Your task to perform on an android device: turn off smart reply in the gmail app Image 0: 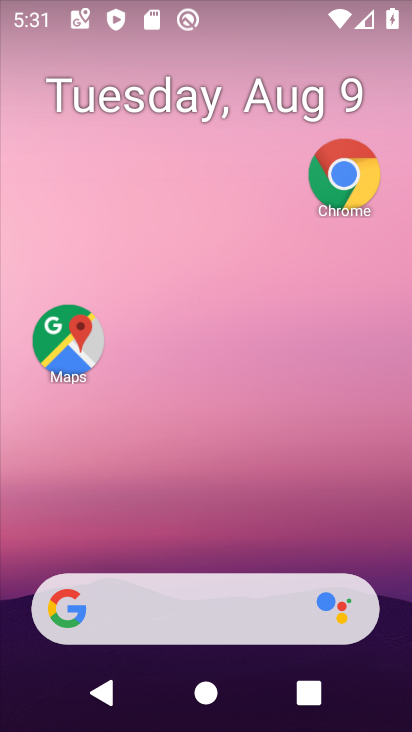
Step 0: drag from (222, 548) to (200, 60)
Your task to perform on an android device: turn off smart reply in the gmail app Image 1: 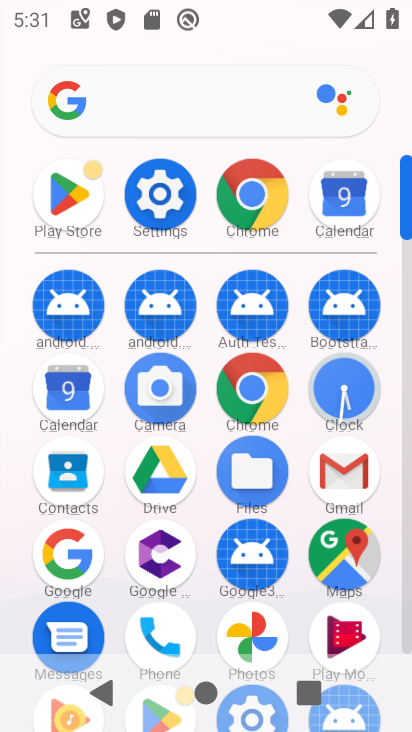
Step 1: click (341, 467)
Your task to perform on an android device: turn off smart reply in the gmail app Image 2: 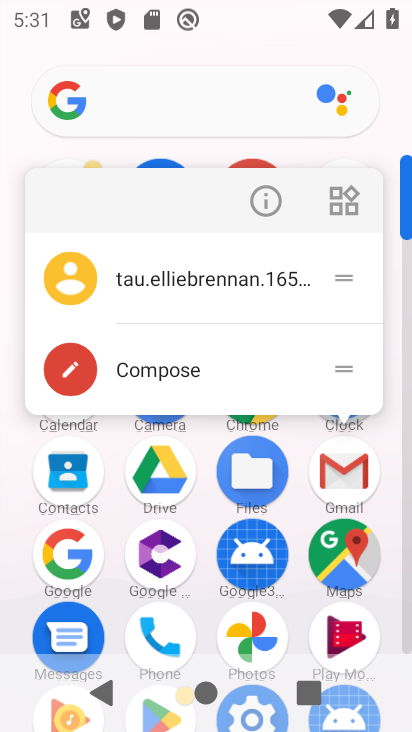
Step 2: click (266, 203)
Your task to perform on an android device: turn off smart reply in the gmail app Image 3: 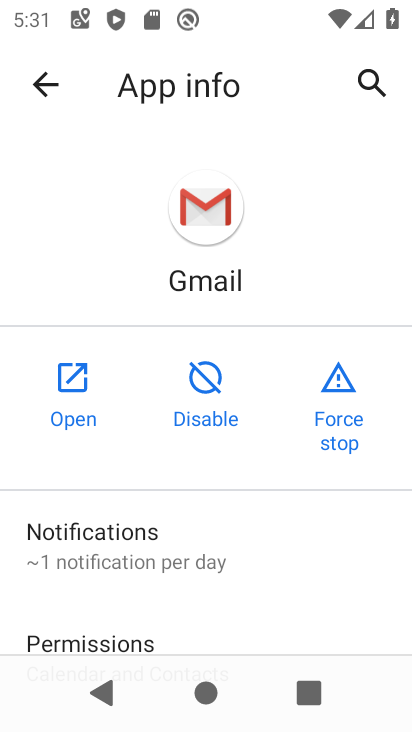
Step 3: click (93, 401)
Your task to perform on an android device: turn off smart reply in the gmail app Image 4: 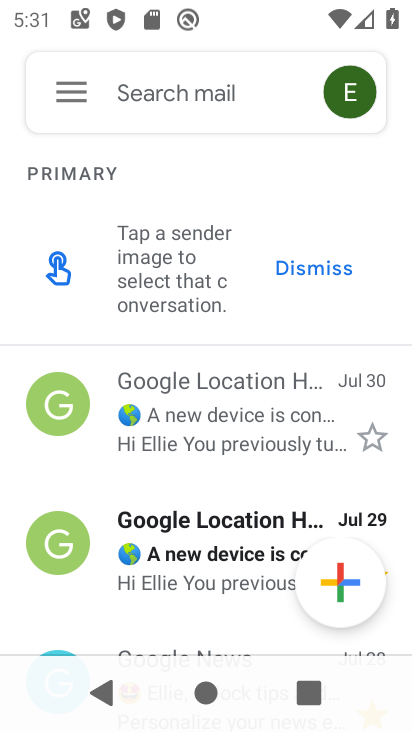
Step 4: click (96, 111)
Your task to perform on an android device: turn off smart reply in the gmail app Image 5: 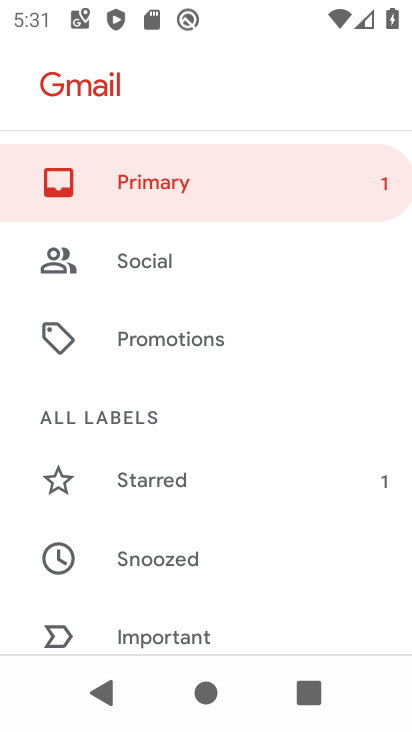
Step 5: drag from (146, 546) to (175, 82)
Your task to perform on an android device: turn off smart reply in the gmail app Image 6: 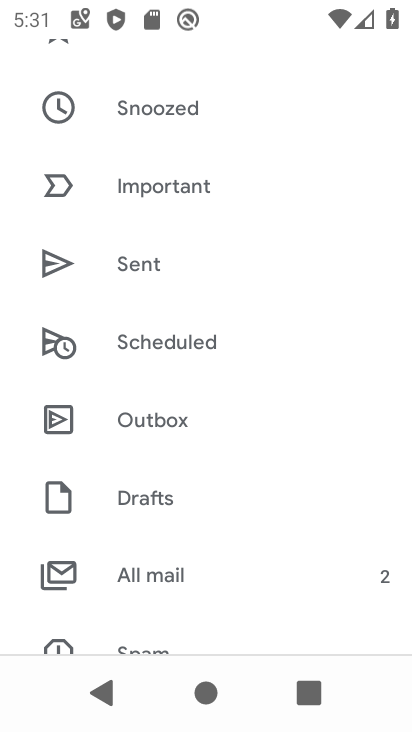
Step 6: drag from (224, 578) to (239, 212)
Your task to perform on an android device: turn off smart reply in the gmail app Image 7: 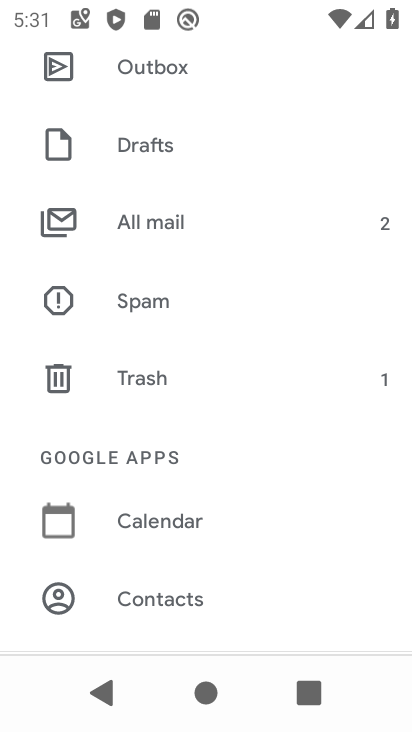
Step 7: drag from (230, 562) to (211, 440)
Your task to perform on an android device: turn off smart reply in the gmail app Image 8: 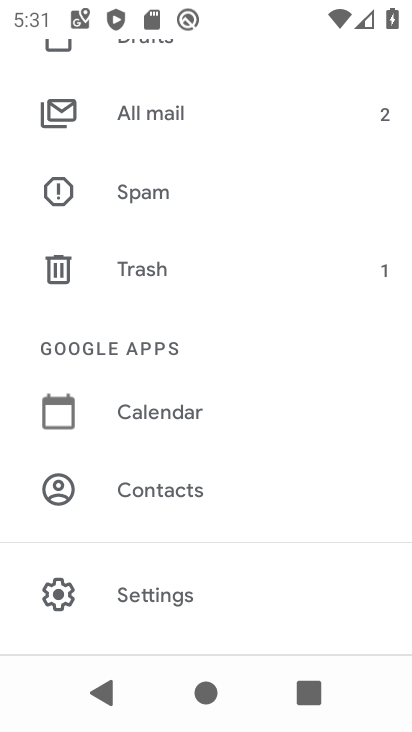
Step 8: drag from (163, 247) to (210, 428)
Your task to perform on an android device: turn off smart reply in the gmail app Image 9: 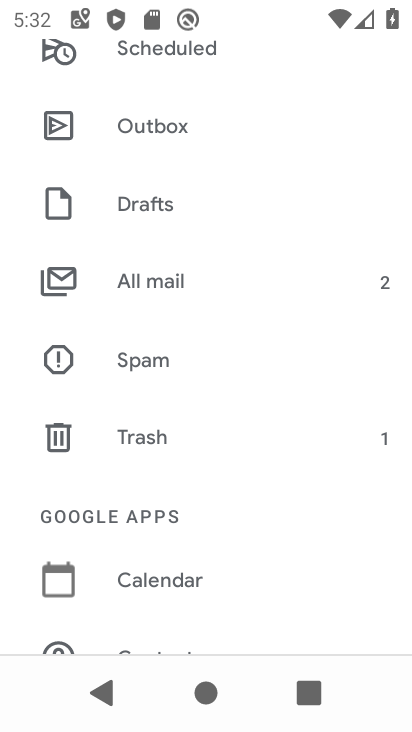
Step 9: drag from (263, 551) to (255, 315)
Your task to perform on an android device: turn off smart reply in the gmail app Image 10: 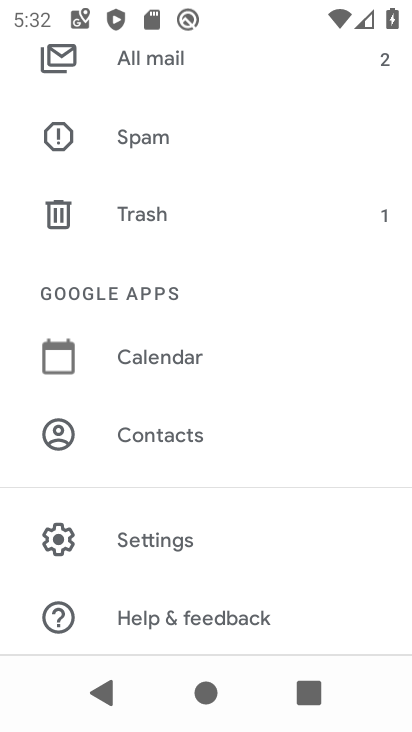
Step 10: drag from (186, 546) to (175, 38)
Your task to perform on an android device: turn off smart reply in the gmail app Image 11: 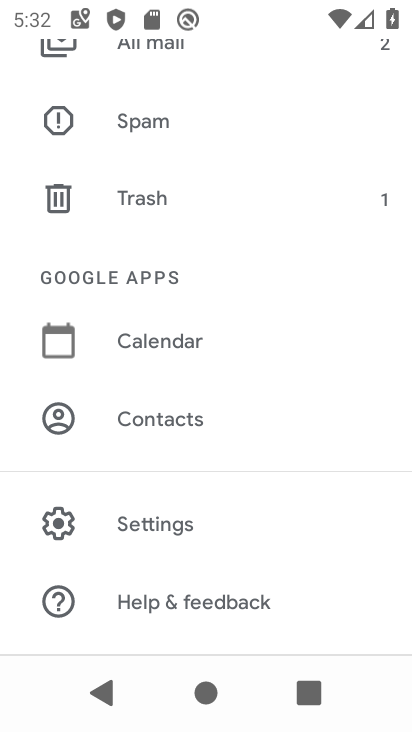
Step 11: drag from (187, 572) to (200, 255)
Your task to perform on an android device: turn off smart reply in the gmail app Image 12: 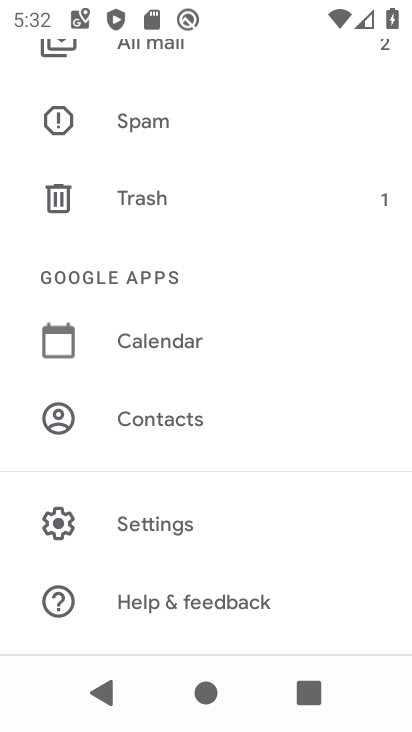
Step 12: click (178, 534)
Your task to perform on an android device: turn off smart reply in the gmail app Image 13: 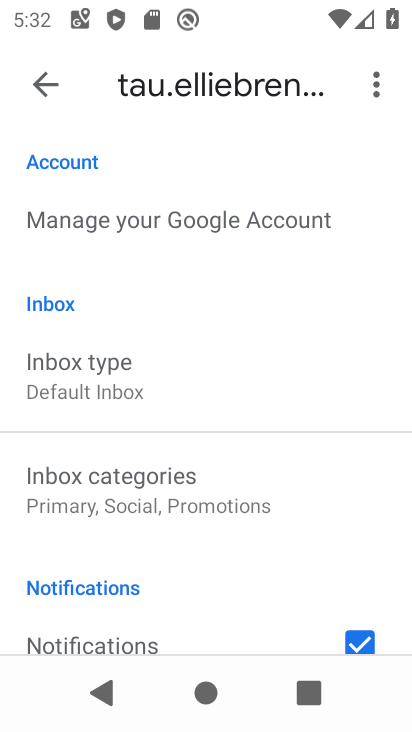
Step 13: drag from (205, 548) to (212, 404)
Your task to perform on an android device: turn off smart reply in the gmail app Image 14: 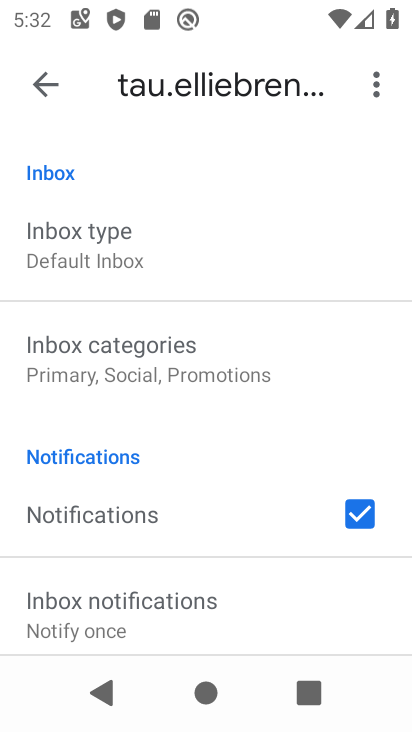
Step 14: click (132, 266)
Your task to perform on an android device: turn off smart reply in the gmail app Image 15: 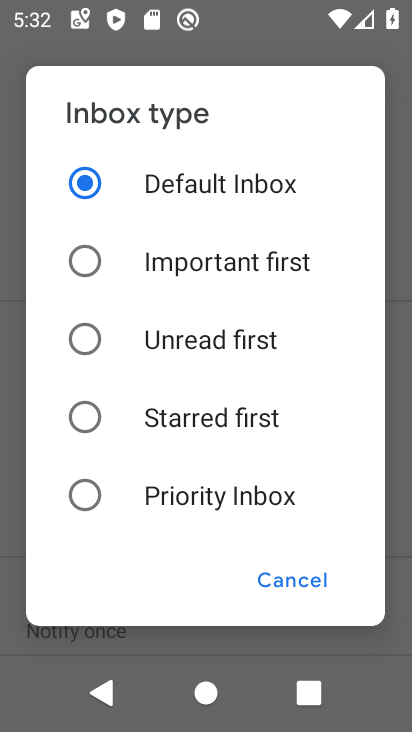
Step 15: click (287, 574)
Your task to perform on an android device: turn off smart reply in the gmail app Image 16: 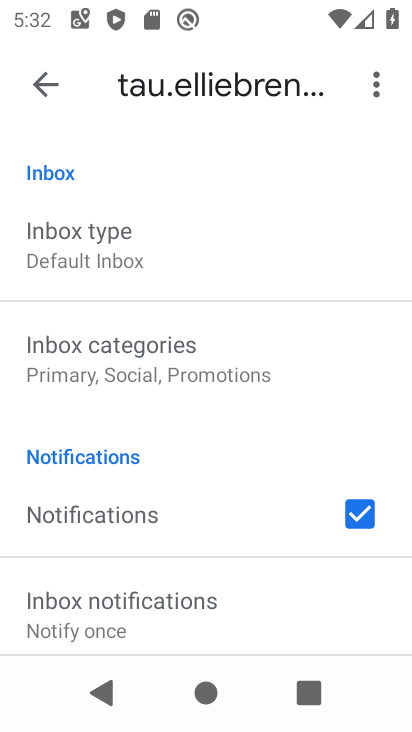
Step 16: drag from (174, 570) to (206, 388)
Your task to perform on an android device: turn off smart reply in the gmail app Image 17: 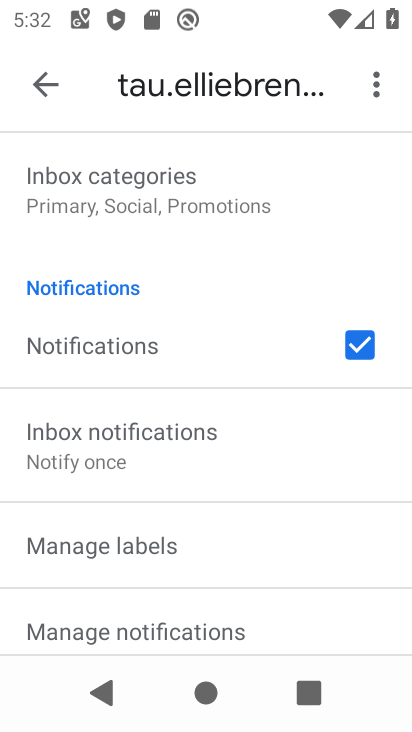
Step 17: drag from (225, 589) to (176, 261)
Your task to perform on an android device: turn off smart reply in the gmail app Image 18: 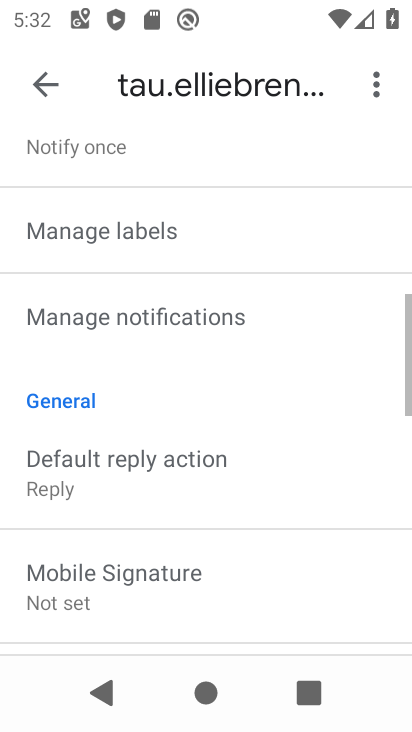
Step 18: drag from (197, 535) to (217, 305)
Your task to perform on an android device: turn off smart reply in the gmail app Image 19: 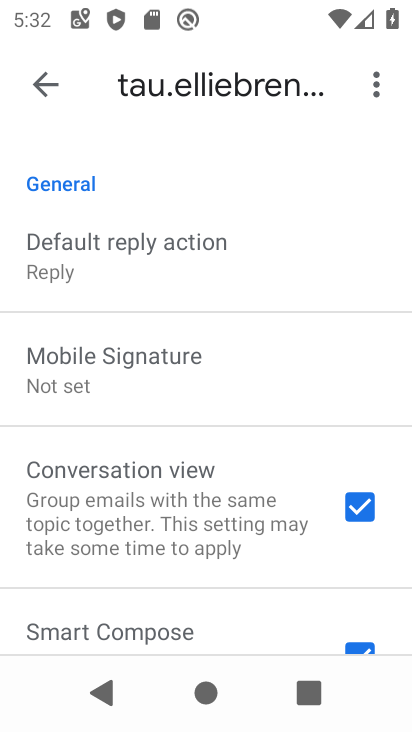
Step 19: drag from (202, 552) to (181, 318)
Your task to perform on an android device: turn off smart reply in the gmail app Image 20: 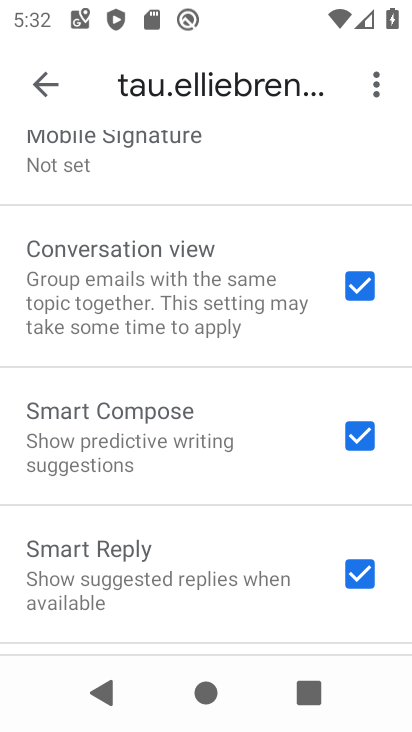
Step 20: drag from (197, 586) to (204, 226)
Your task to perform on an android device: turn off smart reply in the gmail app Image 21: 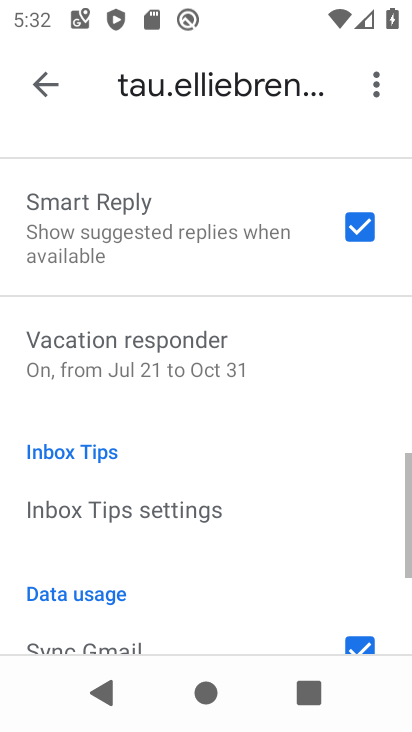
Step 21: drag from (218, 567) to (215, 389)
Your task to perform on an android device: turn off smart reply in the gmail app Image 22: 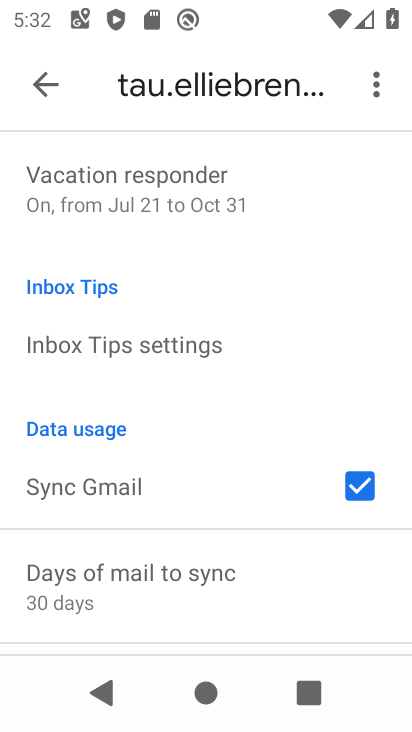
Step 22: drag from (222, 531) to (219, 290)
Your task to perform on an android device: turn off smart reply in the gmail app Image 23: 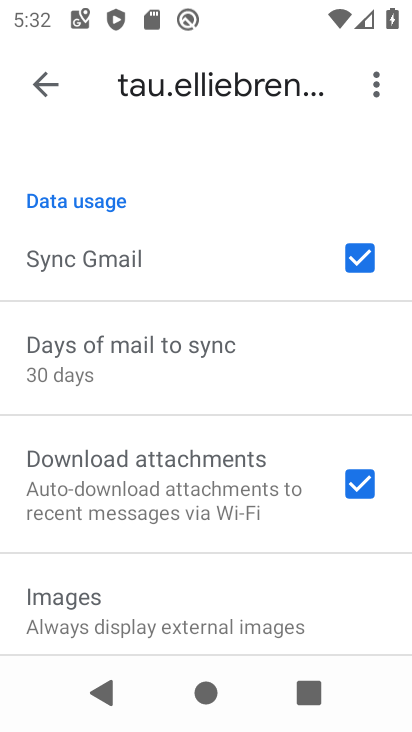
Step 23: drag from (198, 577) to (203, 327)
Your task to perform on an android device: turn off smart reply in the gmail app Image 24: 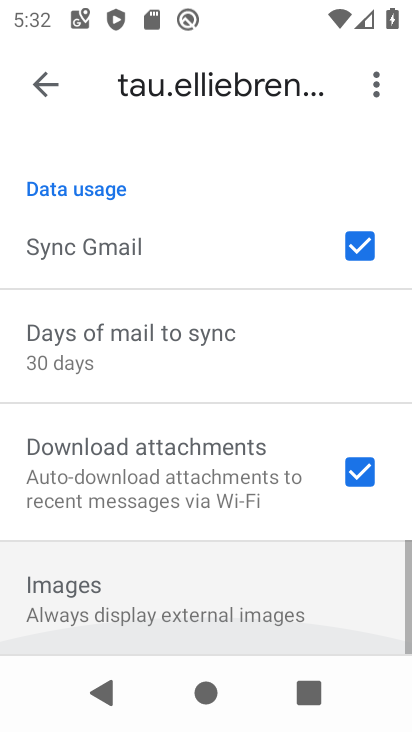
Step 24: drag from (206, 232) to (222, 361)
Your task to perform on an android device: turn off smart reply in the gmail app Image 25: 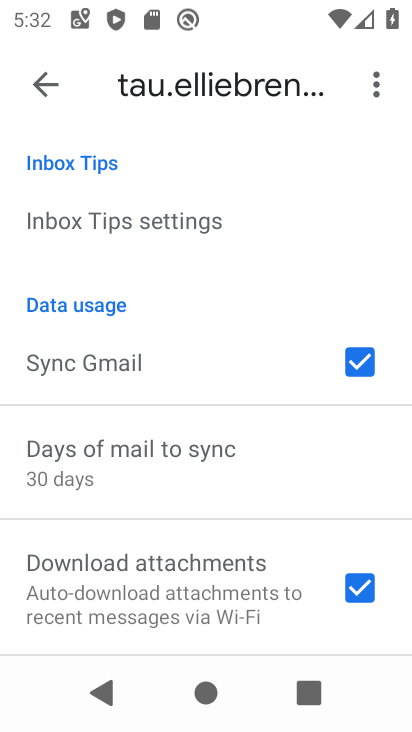
Step 25: drag from (161, 273) to (250, 511)
Your task to perform on an android device: turn off smart reply in the gmail app Image 26: 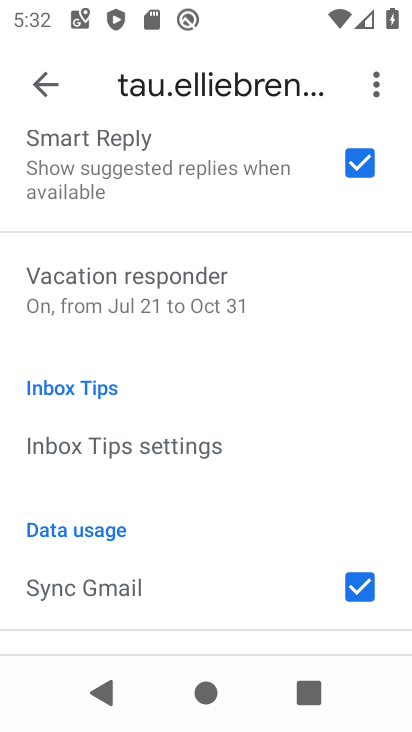
Step 26: drag from (175, 319) to (301, 569)
Your task to perform on an android device: turn off smart reply in the gmail app Image 27: 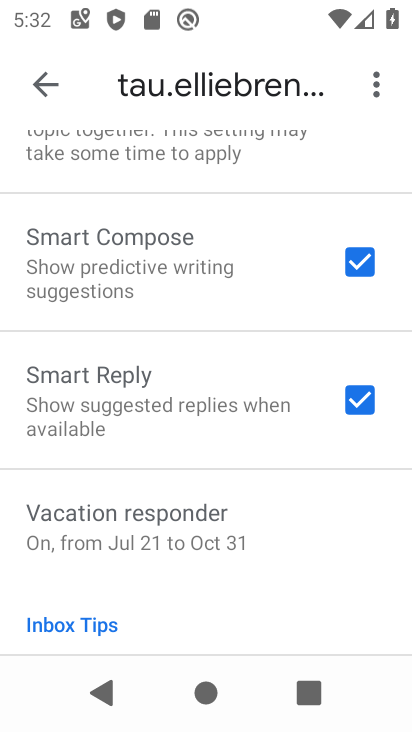
Step 27: drag from (180, 512) to (197, 181)
Your task to perform on an android device: turn off smart reply in the gmail app Image 28: 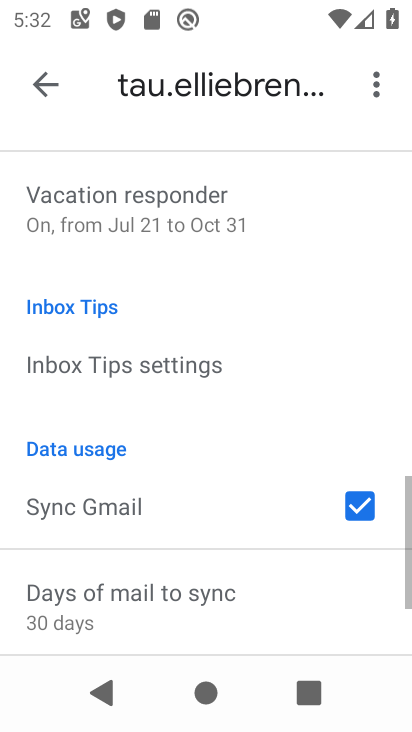
Step 28: drag from (181, 248) to (282, 626)
Your task to perform on an android device: turn off smart reply in the gmail app Image 29: 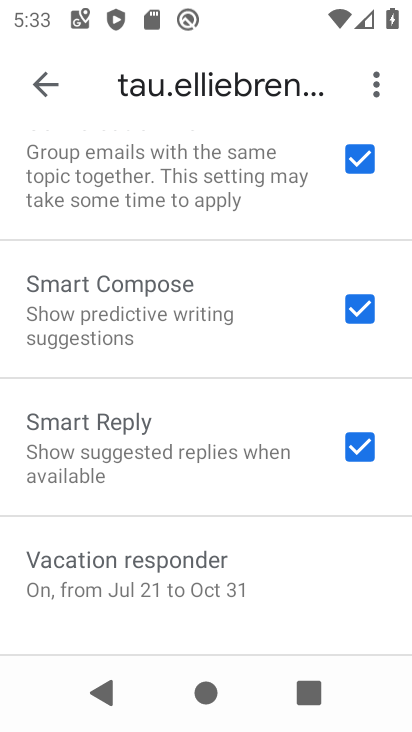
Step 29: click (357, 447)
Your task to perform on an android device: turn off smart reply in the gmail app Image 30: 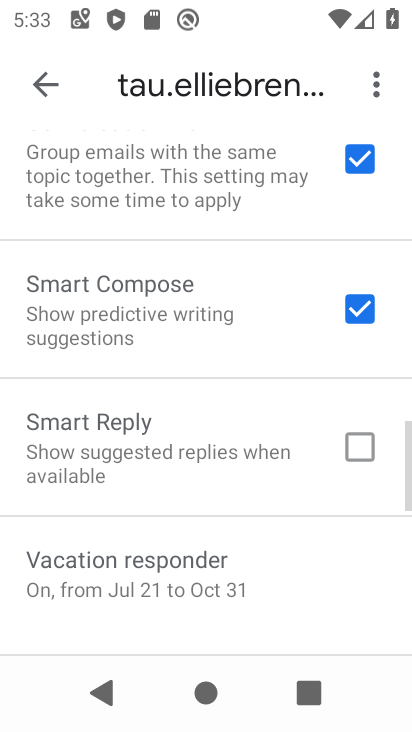
Step 30: task complete